Your task to perform on an android device: turn on location history Image 0: 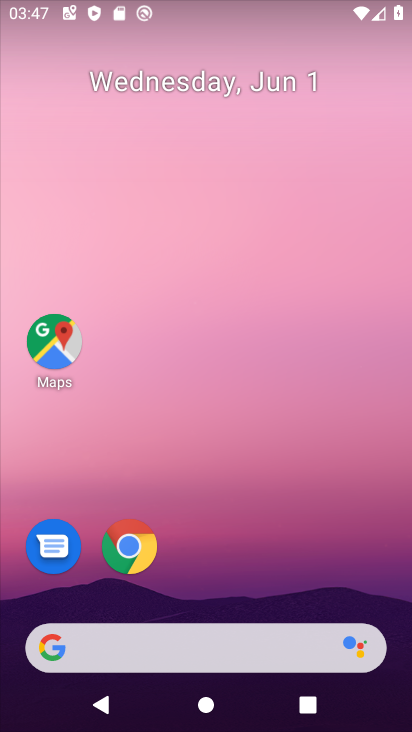
Step 0: drag from (361, 543) to (298, 59)
Your task to perform on an android device: turn on location history Image 1: 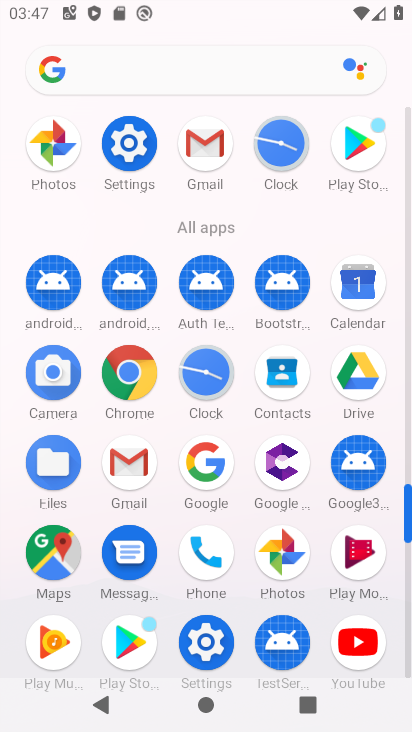
Step 1: click (127, 142)
Your task to perform on an android device: turn on location history Image 2: 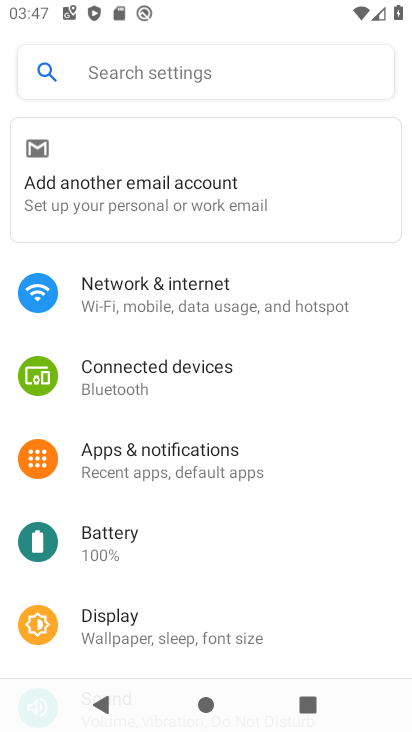
Step 2: drag from (299, 587) to (259, 155)
Your task to perform on an android device: turn on location history Image 3: 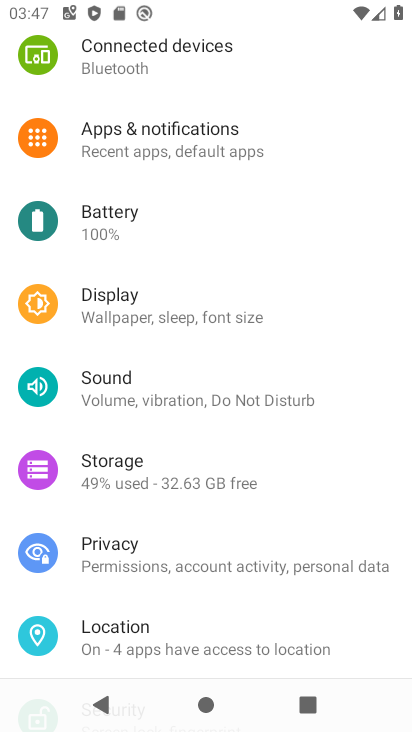
Step 3: click (209, 631)
Your task to perform on an android device: turn on location history Image 4: 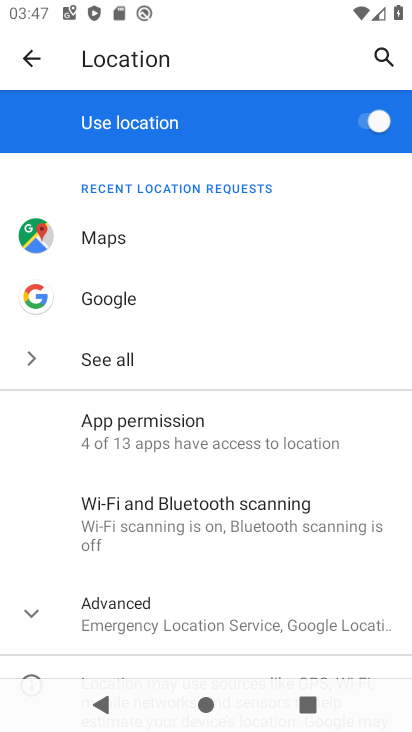
Step 4: click (187, 616)
Your task to perform on an android device: turn on location history Image 5: 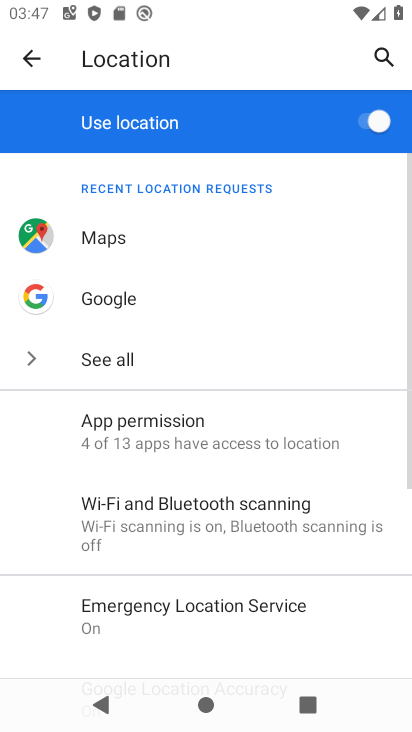
Step 5: drag from (225, 592) to (166, 272)
Your task to perform on an android device: turn on location history Image 6: 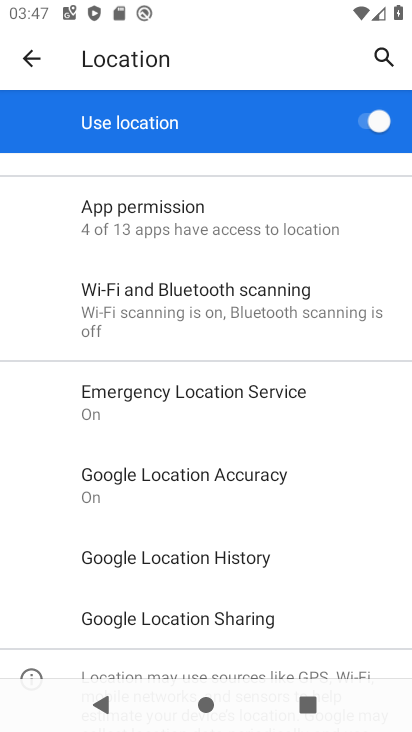
Step 6: click (252, 564)
Your task to perform on an android device: turn on location history Image 7: 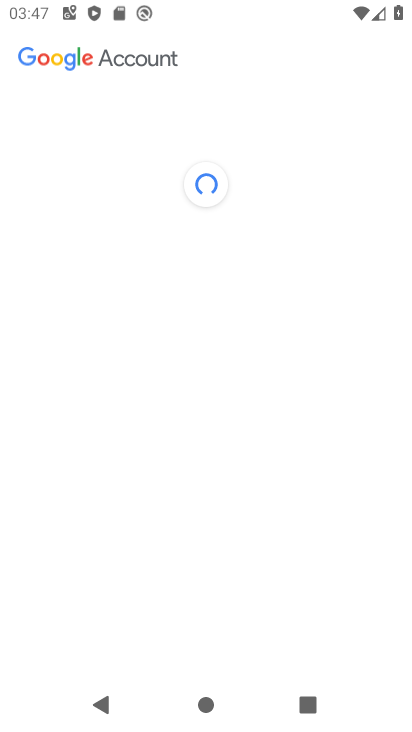
Step 7: task complete